Your task to perform on an android device: turn on airplane mode Image 0: 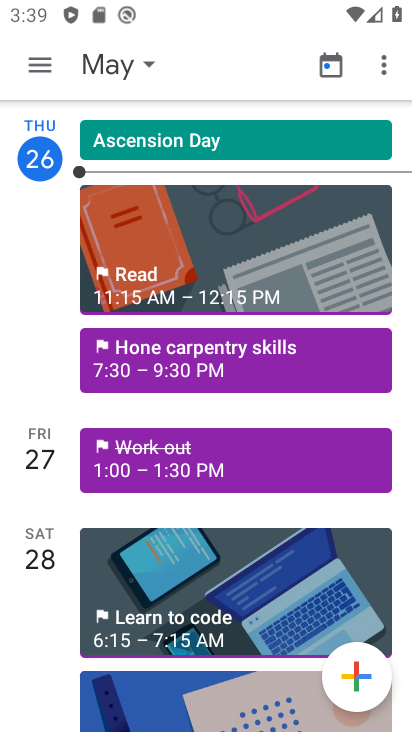
Step 0: press home button
Your task to perform on an android device: turn on airplane mode Image 1: 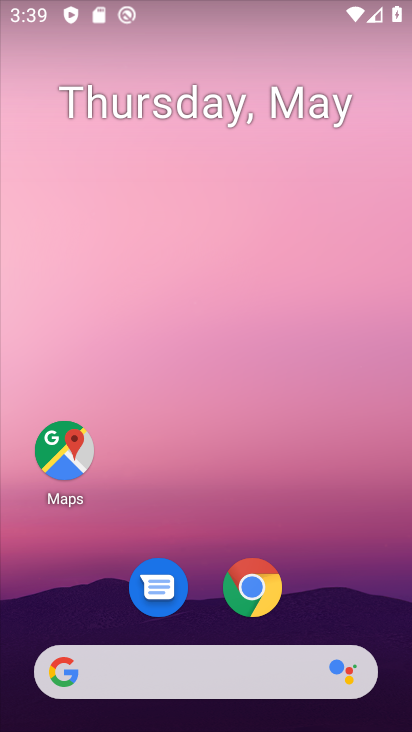
Step 1: drag from (384, 614) to (396, 196)
Your task to perform on an android device: turn on airplane mode Image 2: 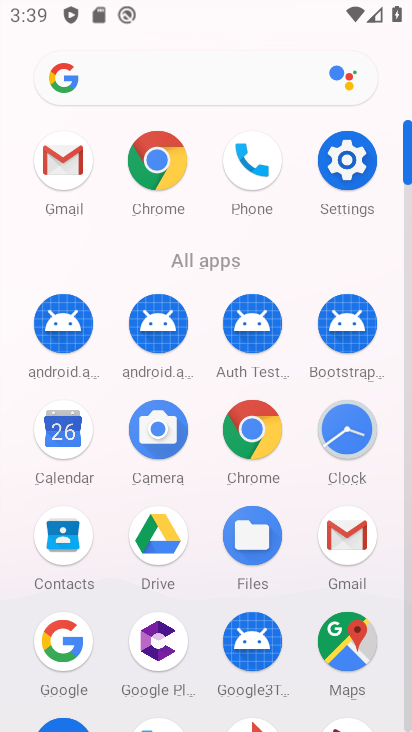
Step 2: click (362, 183)
Your task to perform on an android device: turn on airplane mode Image 3: 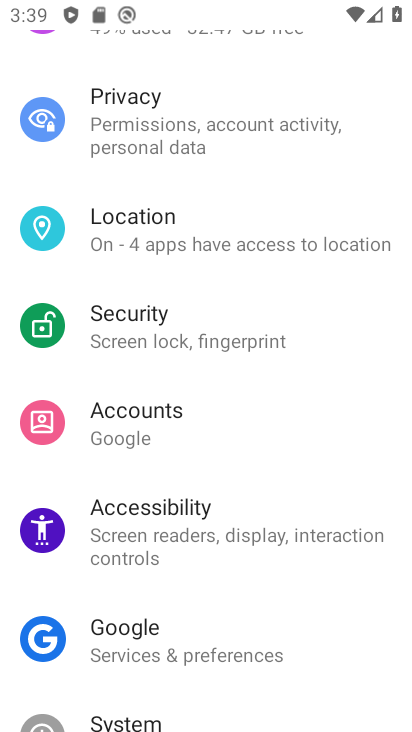
Step 3: drag from (365, 581) to (368, 418)
Your task to perform on an android device: turn on airplane mode Image 4: 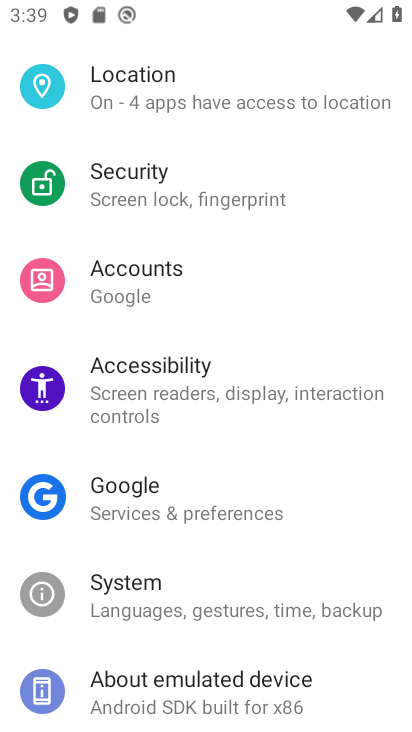
Step 4: drag from (352, 320) to (349, 434)
Your task to perform on an android device: turn on airplane mode Image 5: 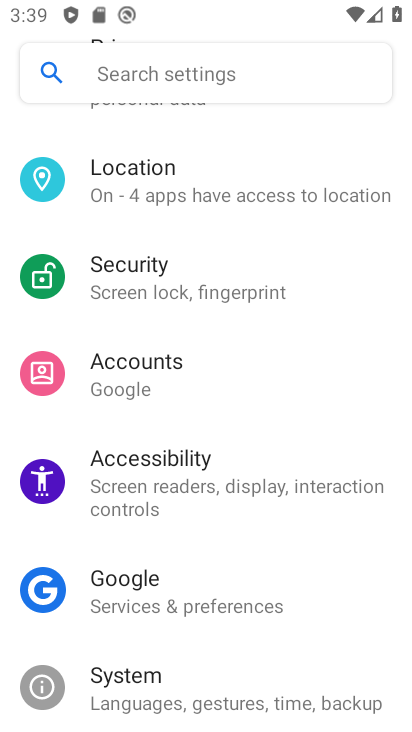
Step 5: drag from (343, 256) to (336, 396)
Your task to perform on an android device: turn on airplane mode Image 6: 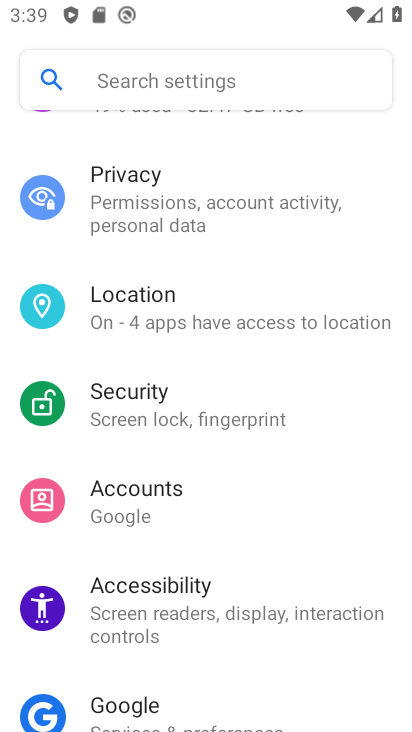
Step 6: drag from (342, 248) to (334, 425)
Your task to perform on an android device: turn on airplane mode Image 7: 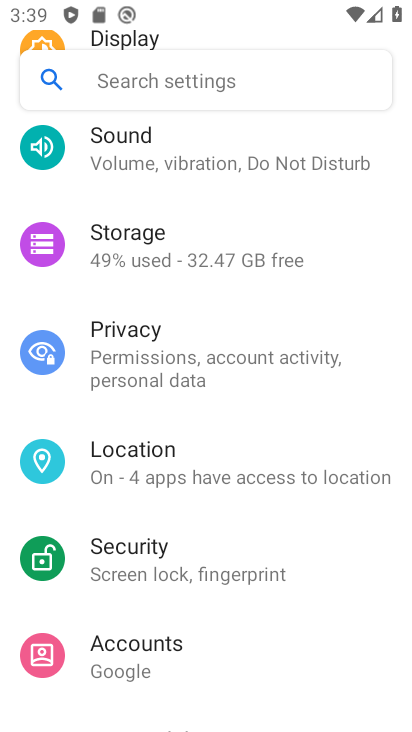
Step 7: drag from (357, 229) to (359, 391)
Your task to perform on an android device: turn on airplane mode Image 8: 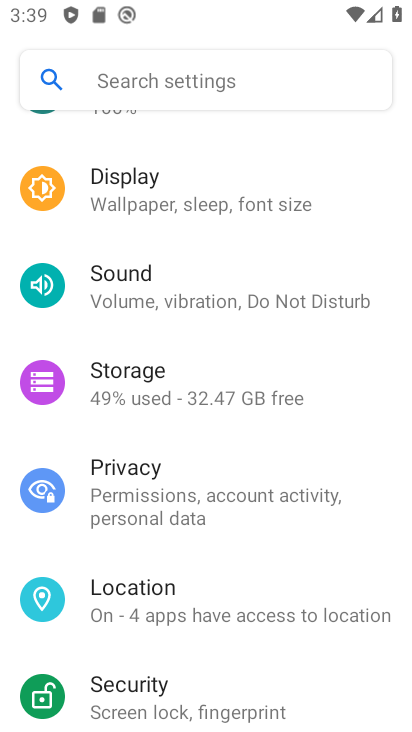
Step 8: drag from (362, 191) to (361, 361)
Your task to perform on an android device: turn on airplane mode Image 9: 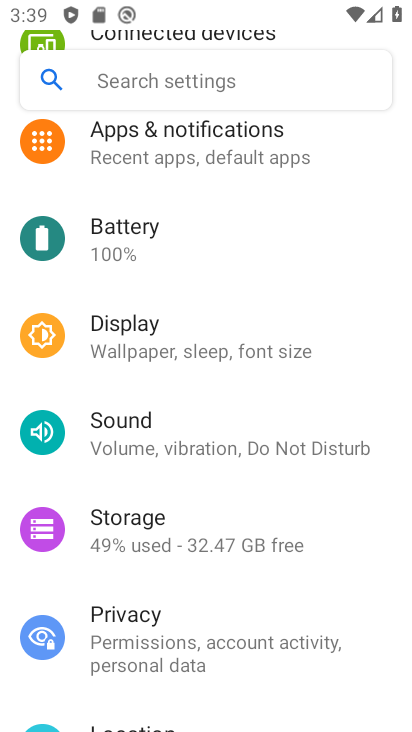
Step 9: drag from (358, 179) to (357, 308)
Your task to perform on an android device: turn on airplane mode Image 10: 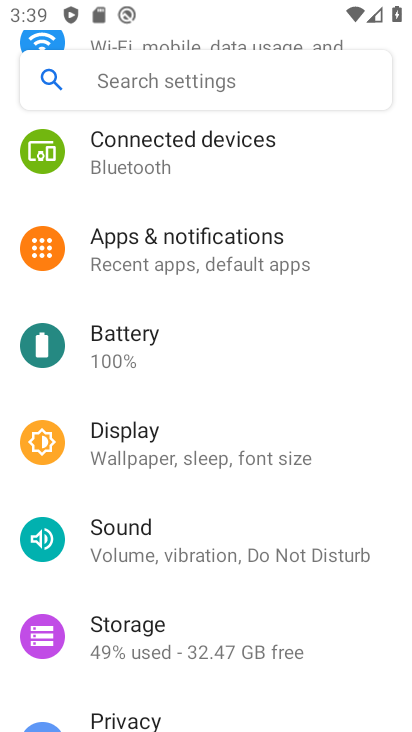
Step 10: drag from (353, 166) to (357, 286)
Your task to perform on an android device: turn on airplane mode Image 11: 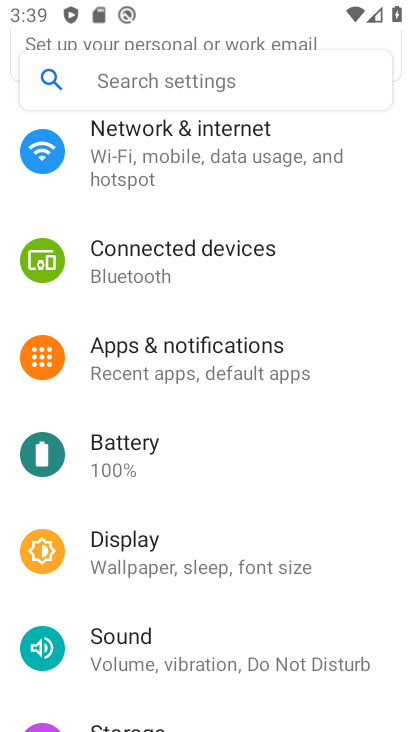
Step 11: click (329, 138)
Your task to perform on an android device: turn on airplane mode Image 12: 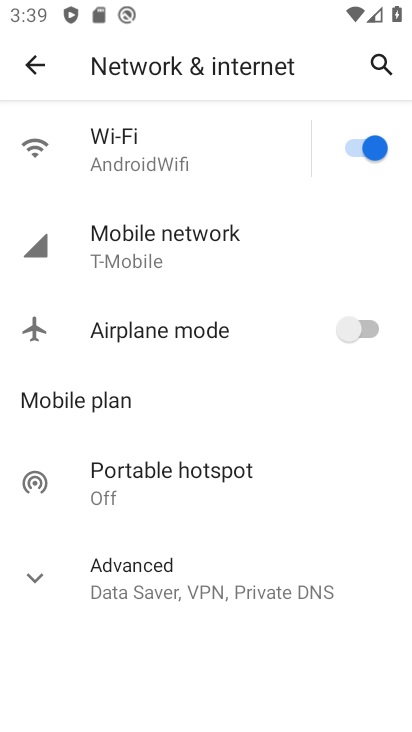
Step 12: click (354, 321)
Your task to perform on an android device: turn on airplane mode Image 13: 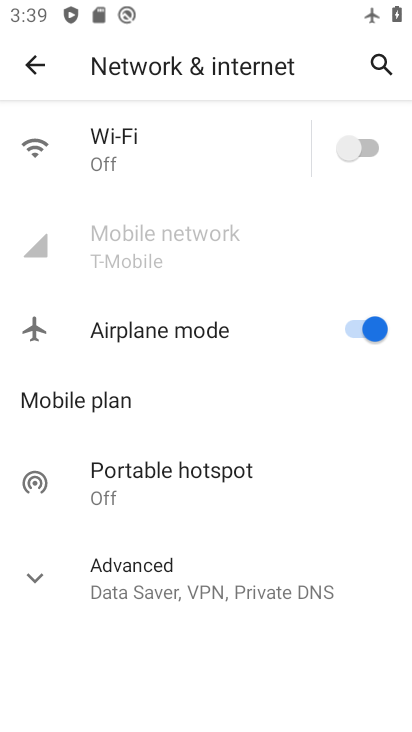
Step 13: task complete